Your task to perform on an android device: open app "Google Play Music" Image 0: 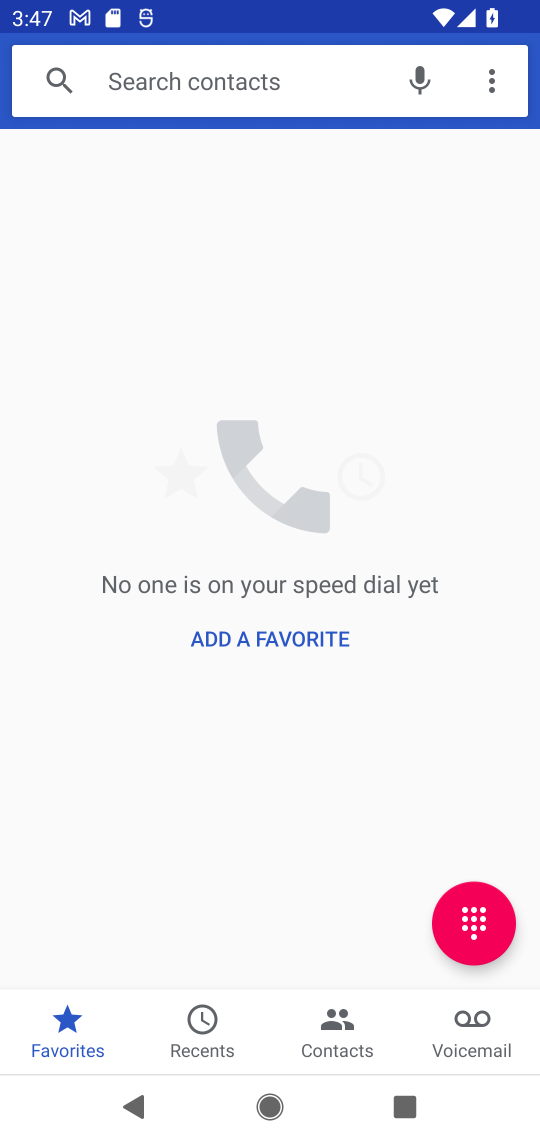
Step 0: press home button
Your task to perform on an android device: open app "Google Play Music" Image 1: 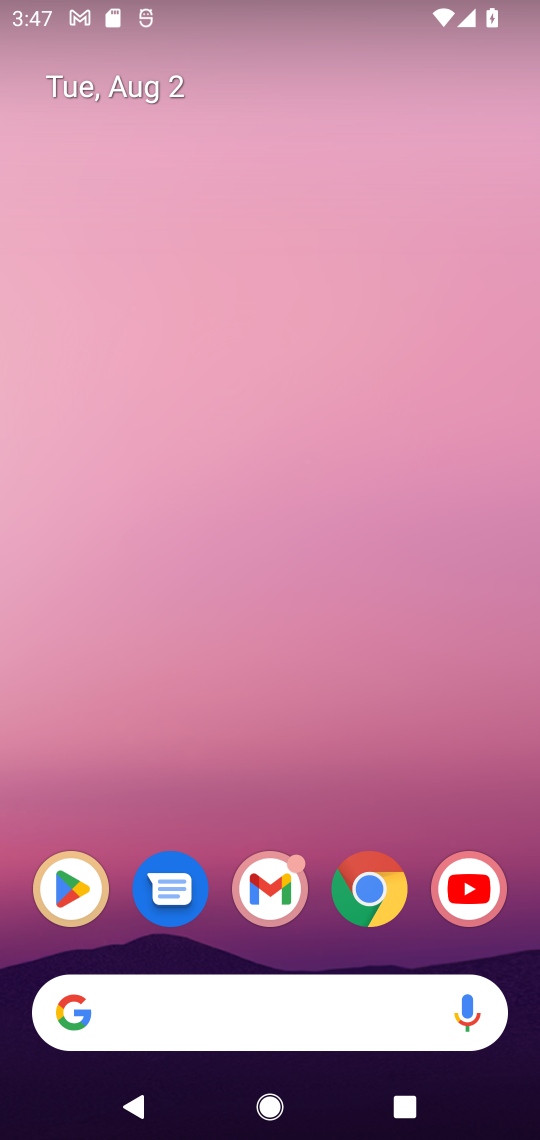
Step 1: drag from (433, 720) to (432, 83)
Your task to perform on an android device: open app "Google Play Music" Image 2: 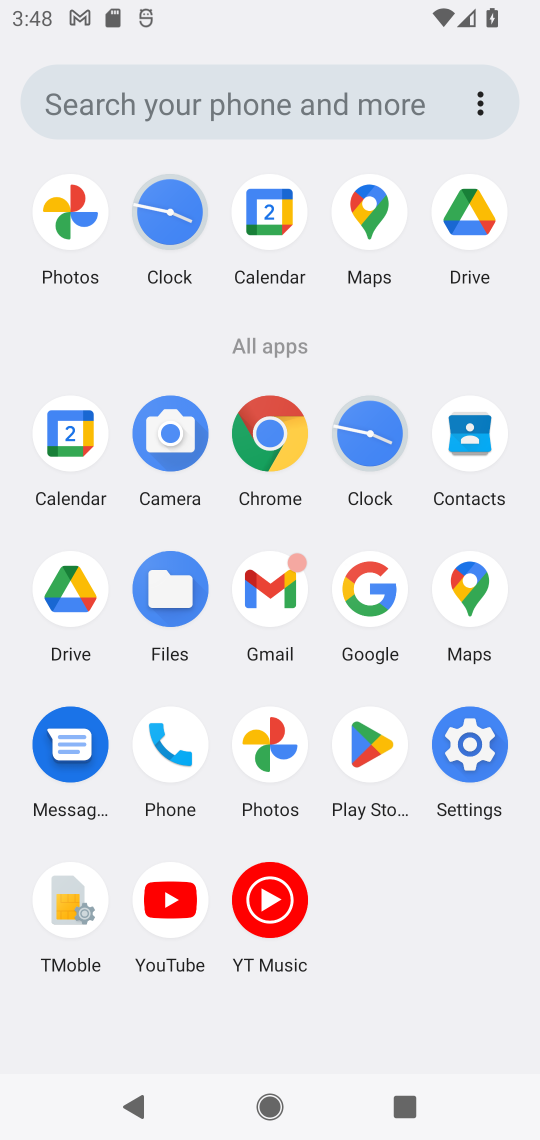
Step 2: click (365, 751)
Your task to perform on an android device: open app "Google Play Music" Image 3: 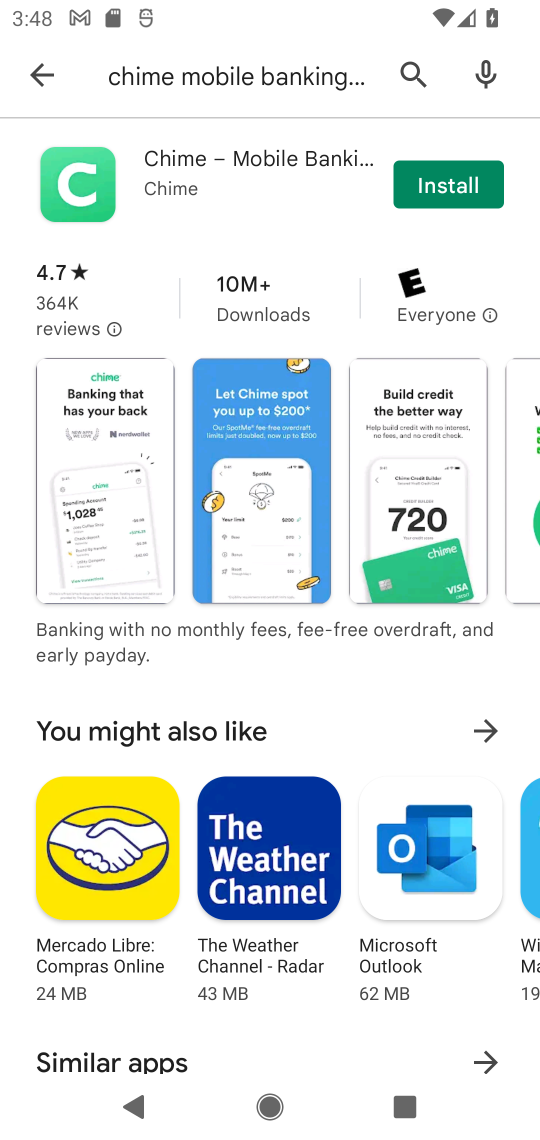
Step 3: click (406, 80)
Your task to perform on an android device: open app "Google Play Music" Image 4: 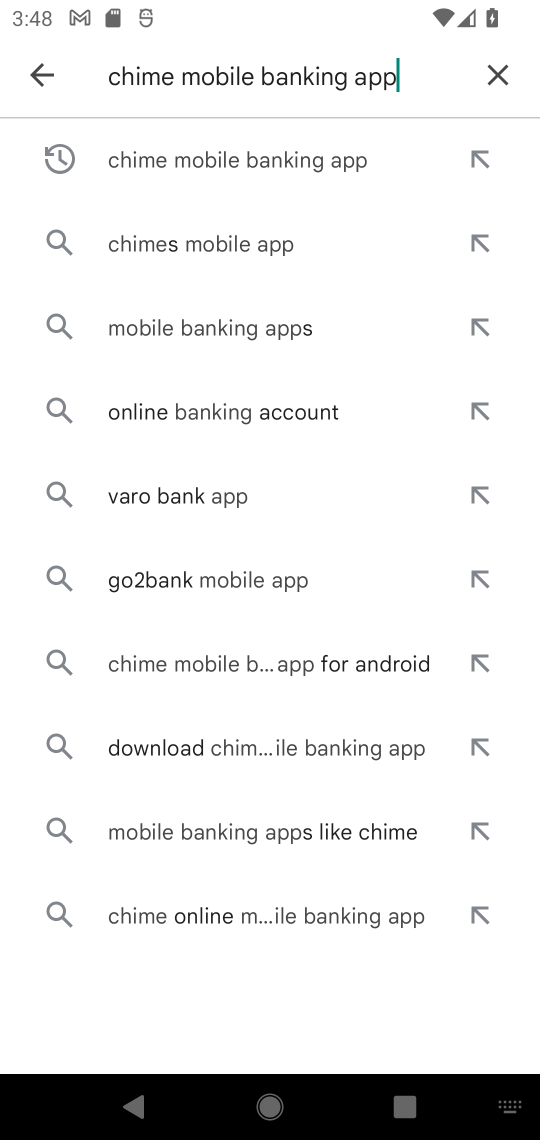
Step 4: click (503, 71)
Your task to perform on an android device: open app "Google Play Music" Image 5: 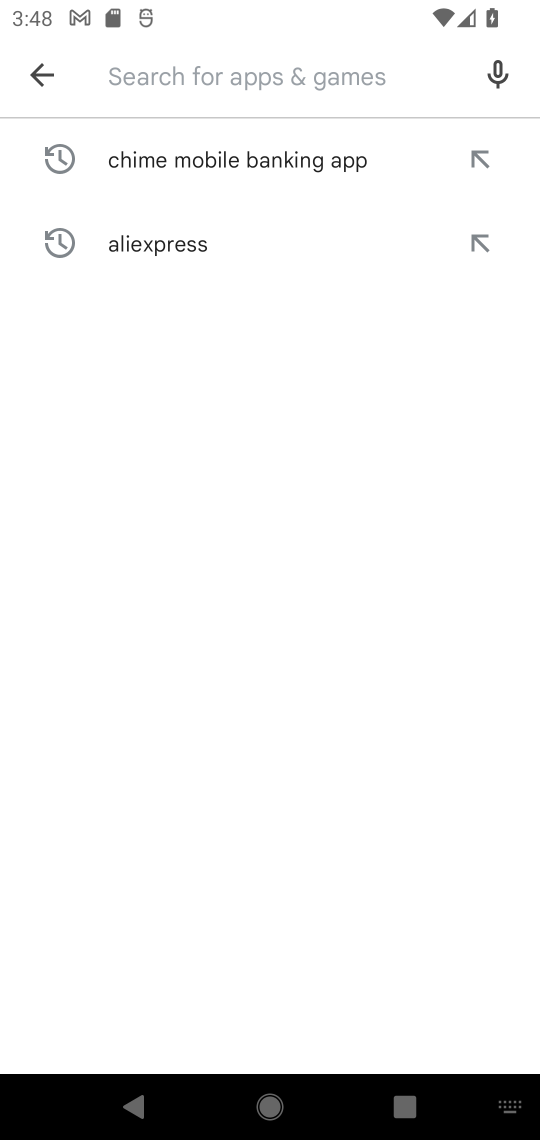
Step 5: click (396, 86)
Your task to perform on an android device: open app "Google Play Music" Image 6: 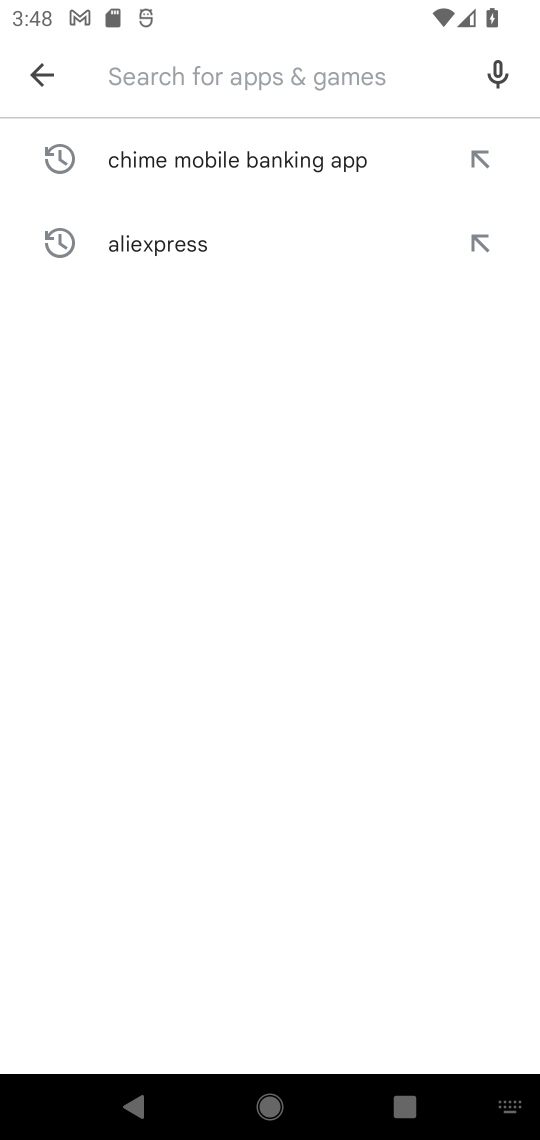
Step 6: type "google play music"
Your task to perform on an android device: open app "Google Play Music" Image 7: 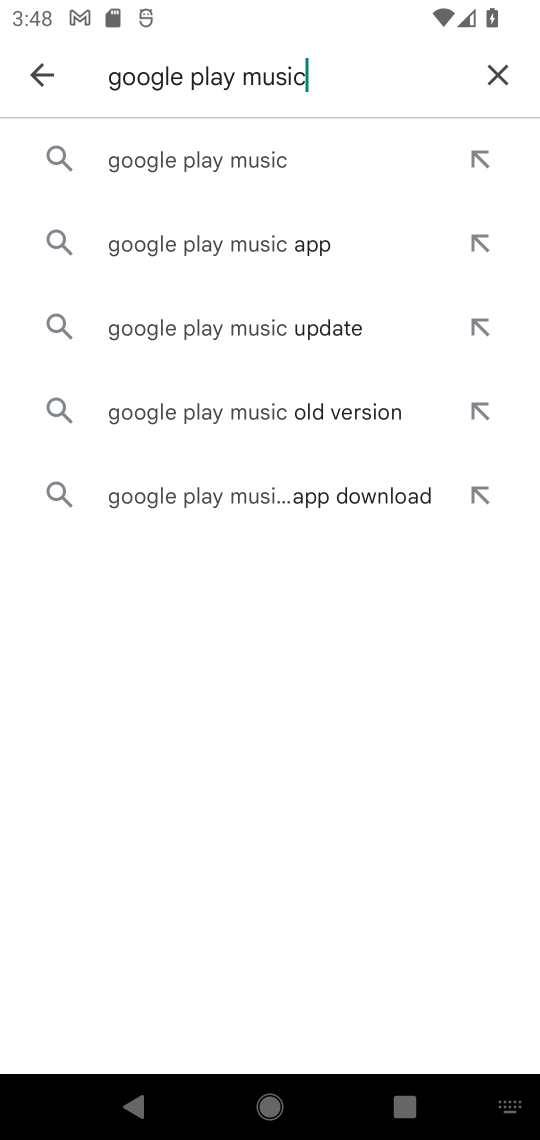
Step 7: click (261, 153)
Your task to perform on an android device: open app "Google Play Music" Image 8: 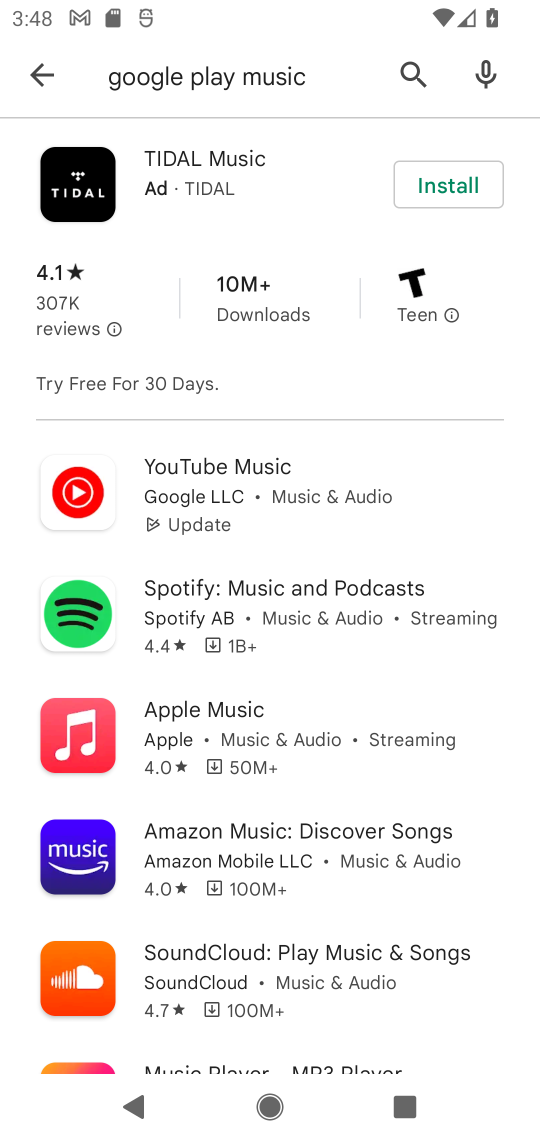
Step 8: task complete